Your task to perform on an android device: Show the shopping cart on costco.com. Add energizer triple a to the cart on costco.com, then select checkout. Image 0: 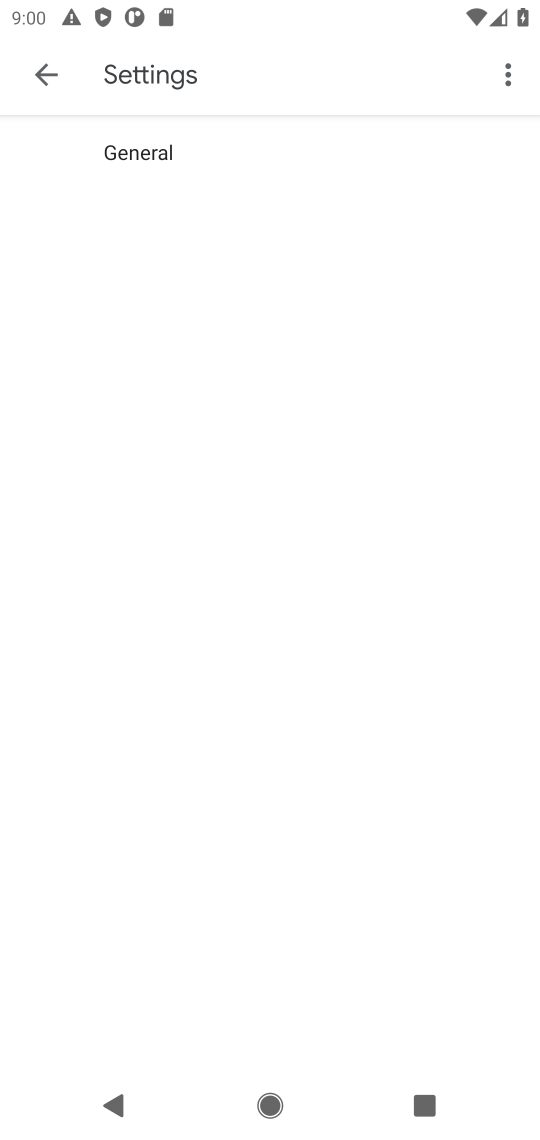
Step 0: task complete